Your task to perform on an android device: toggle airplane mode Image 0: 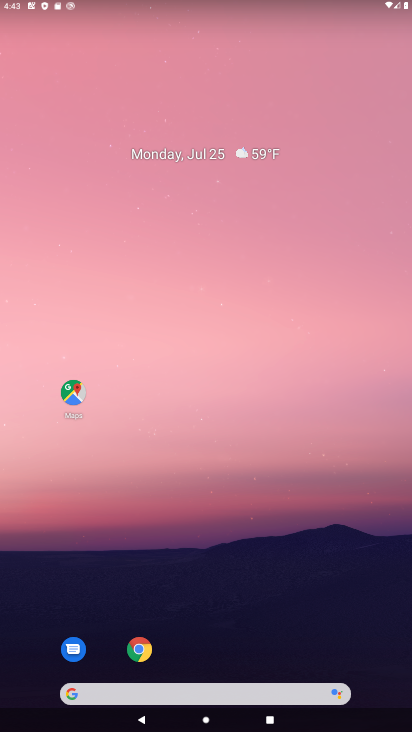
Step 0: drag from (233, 506) to (322, 46)
Your task to perform on an android device: toggle airplane mode Image 1: 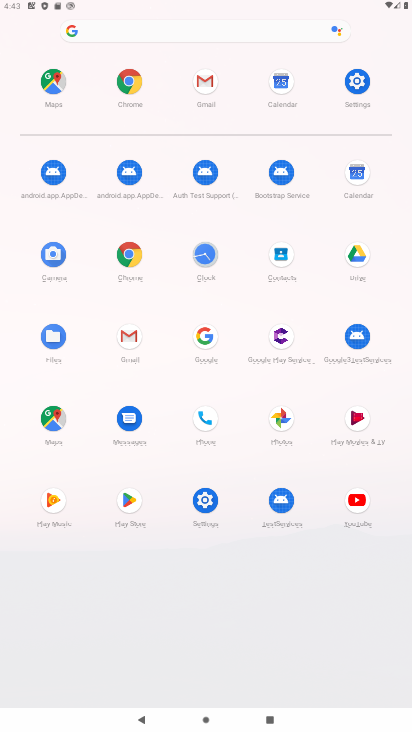
Step 1: click (371, 84)
Your task to perform on an android device: toggle airplane mode Image 2: 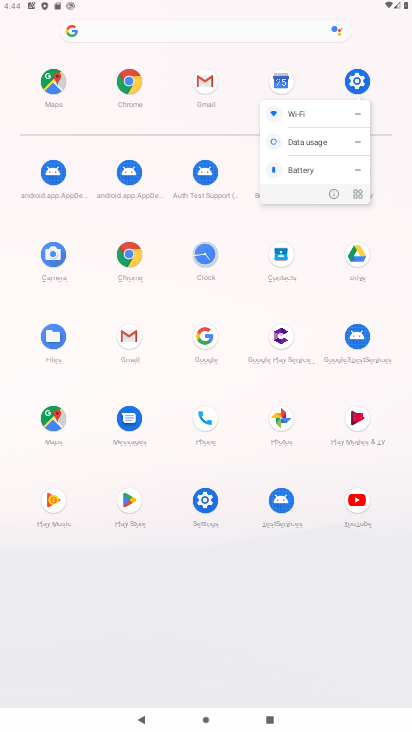
Step 2: click (361, 72)
Your task to perform on an android device: toggle airplane mode Image 3: 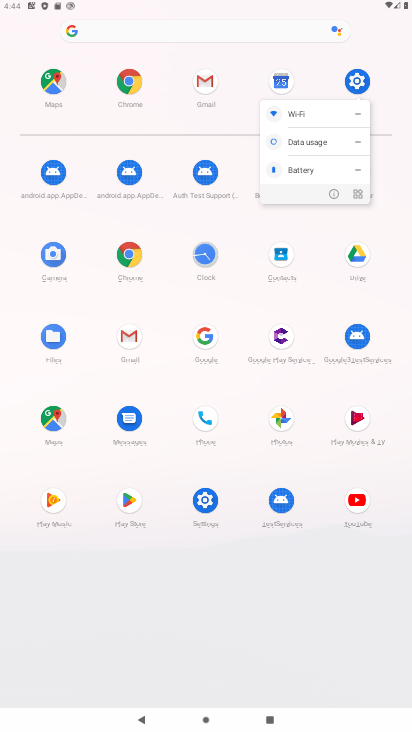
Step 3: click (359, 76)
Your task to perform on an android device: toggle airplane mode Image 4: 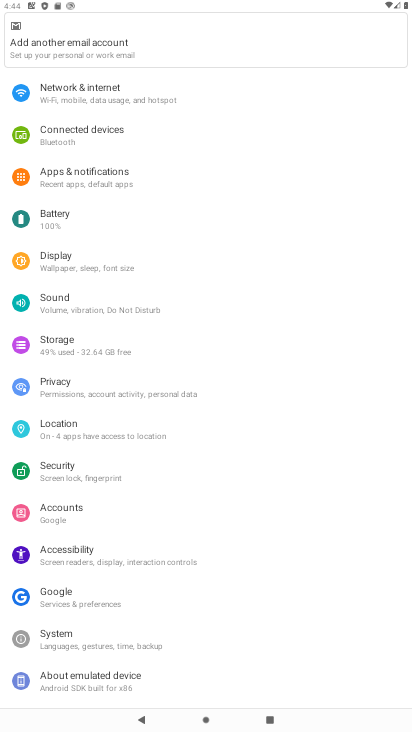
Step 4: click (98, 88)
Your task to perform on an android device: toggle airplane mode Image 5: 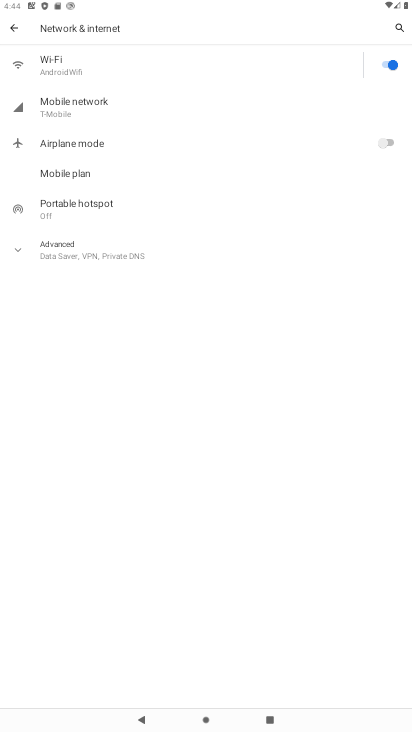
Step 5: click (99, 152)
Your task to perform on an android device: toggle airplane mode Image 6: 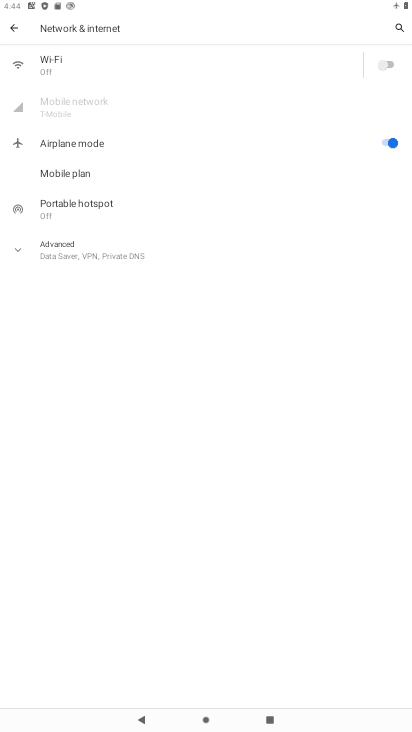
Step 6: task complete